Your task to perform on an android device: When is my next meeting? Image 0: 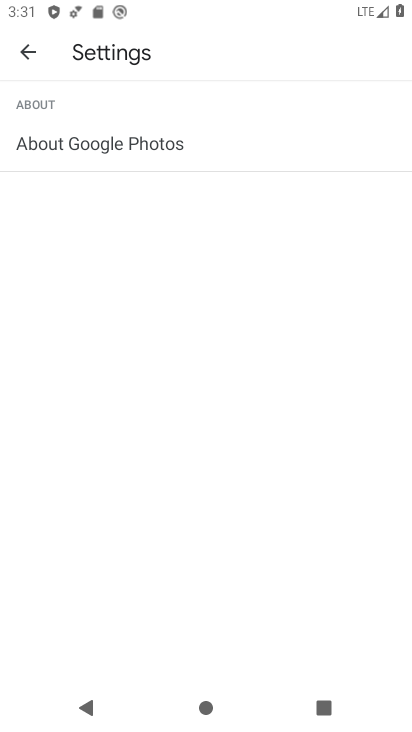
Step 0: press back button
Your task to perform on an android device: When is my next meeting? Image 1: 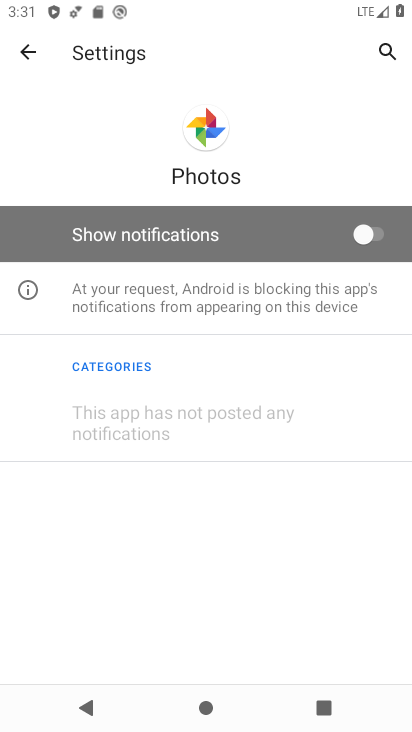
Step 1: press back button
Your task to perform on an android device: When is my next meeting? Image 2: 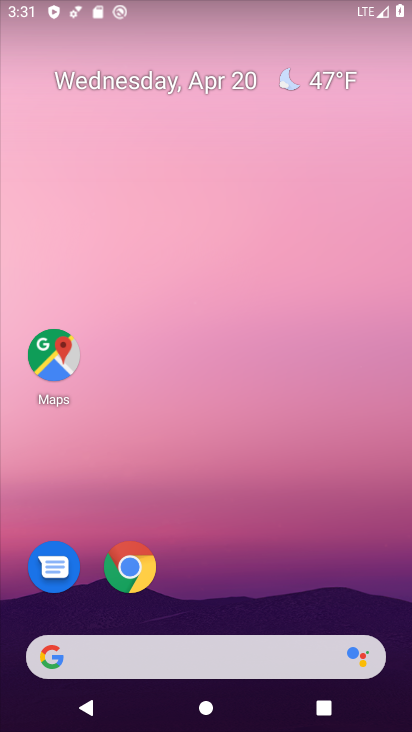
Step 2: drag from (259, 443) to (201, 10)
Your task to perform on an android device: When is my next meeting? Image 3: 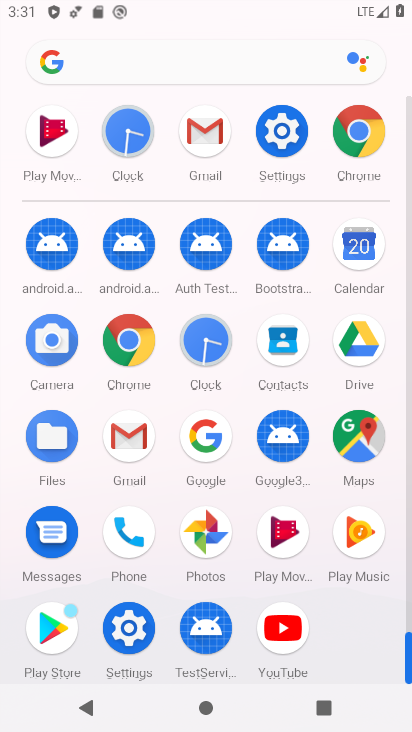
Step 3: drag from (10, 496) to (3, 225)
Your task to perform on an android device: When is my next meeting? Image 4: 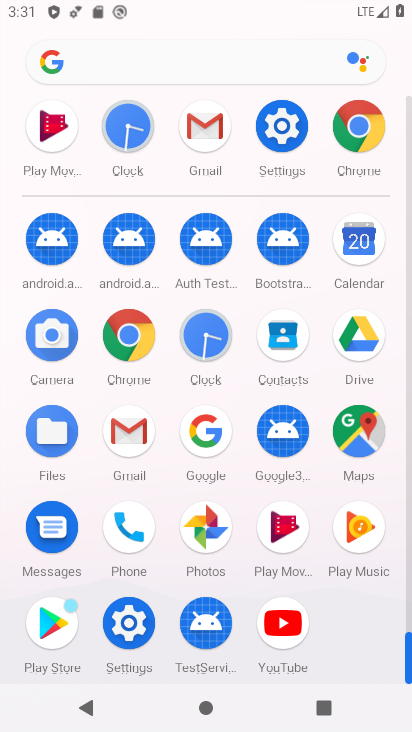
Step 4: click (352, 242)
Your task to perform on an android device: When is my next meeting? Image 5: 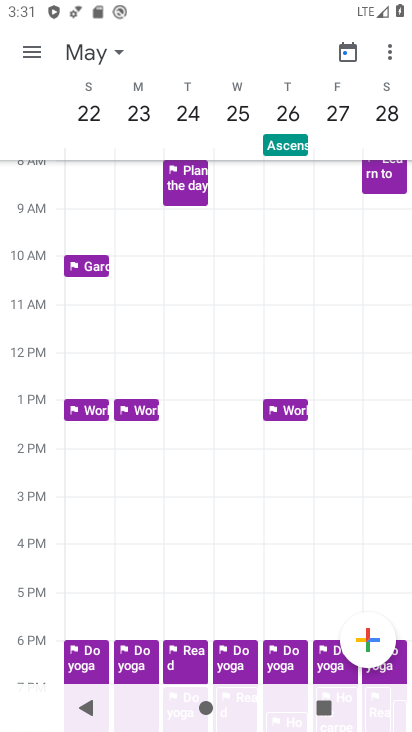
Step 5: click (36, 58)
Your task to perform on an android device: When is my next meeting? Image 6: 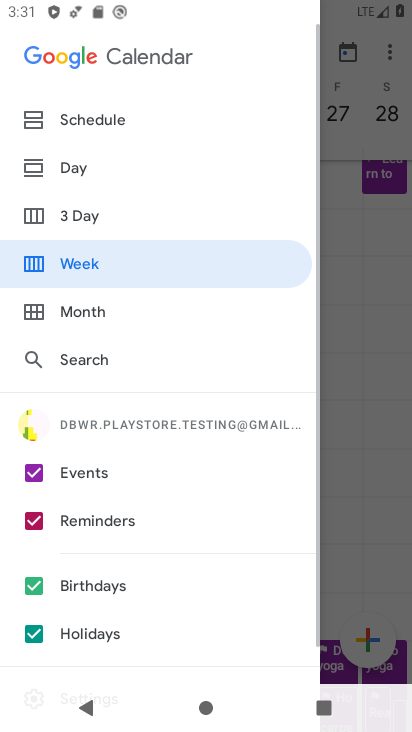
Step 6: click (32, 521)
Your task to perform on an android device: When is my next meeting? Image 7: 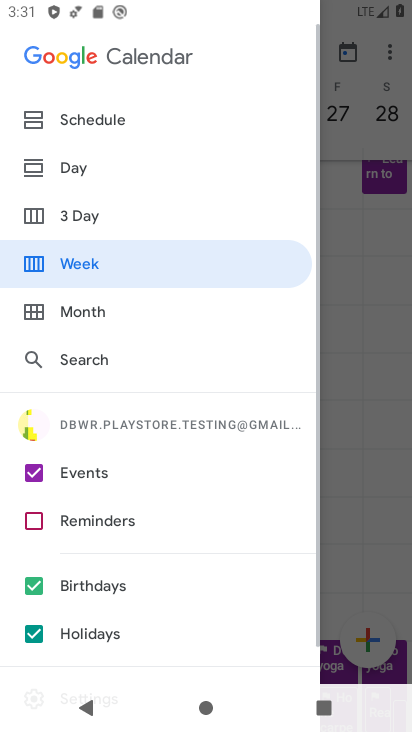
Step 7: click (39, 581)
Your task to perform on an android device: When is my next meeting? Image 8: 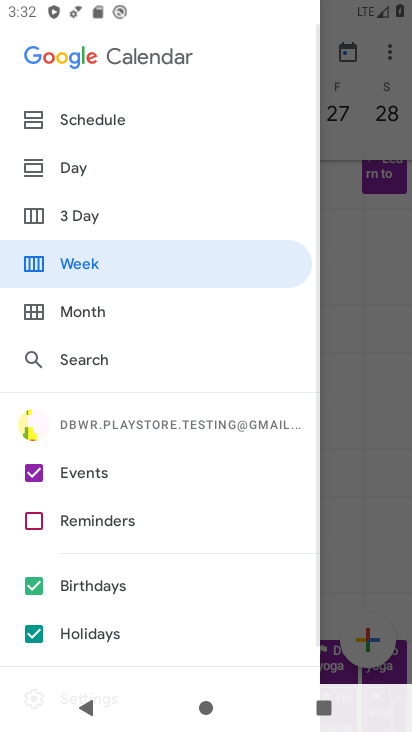
Step 8: click (30, 629)
Your task to perform on an android device: When is my next meeting? Image 9: 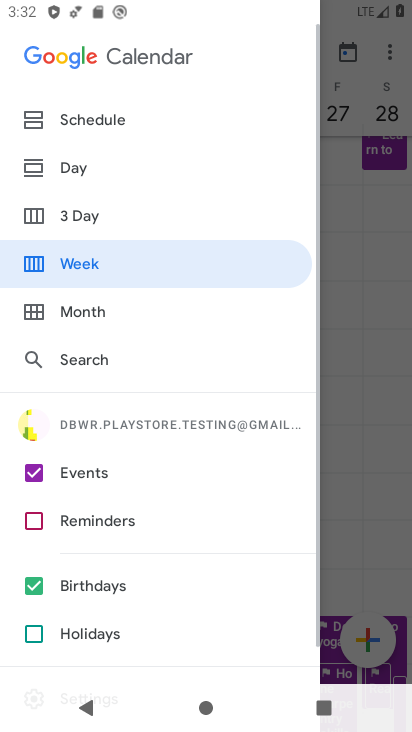
Step 9: click (30, 582)
Your task to perform on an android device: When is my next meeting? Image 10: 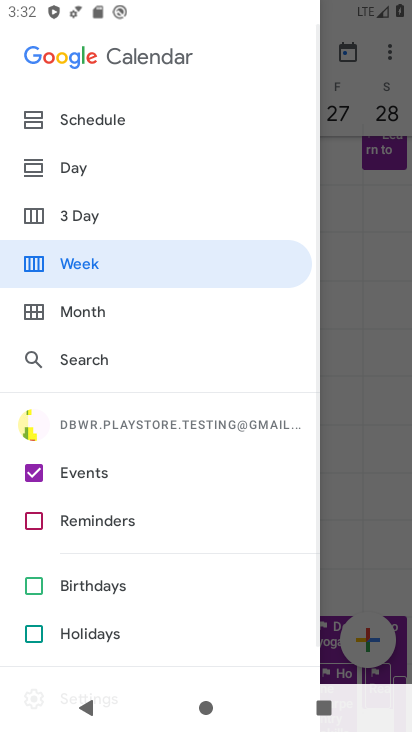
Step 10: task complete